Your task to perform on an android device: uninstall "Life360: Find Family & Friends" Image 0: 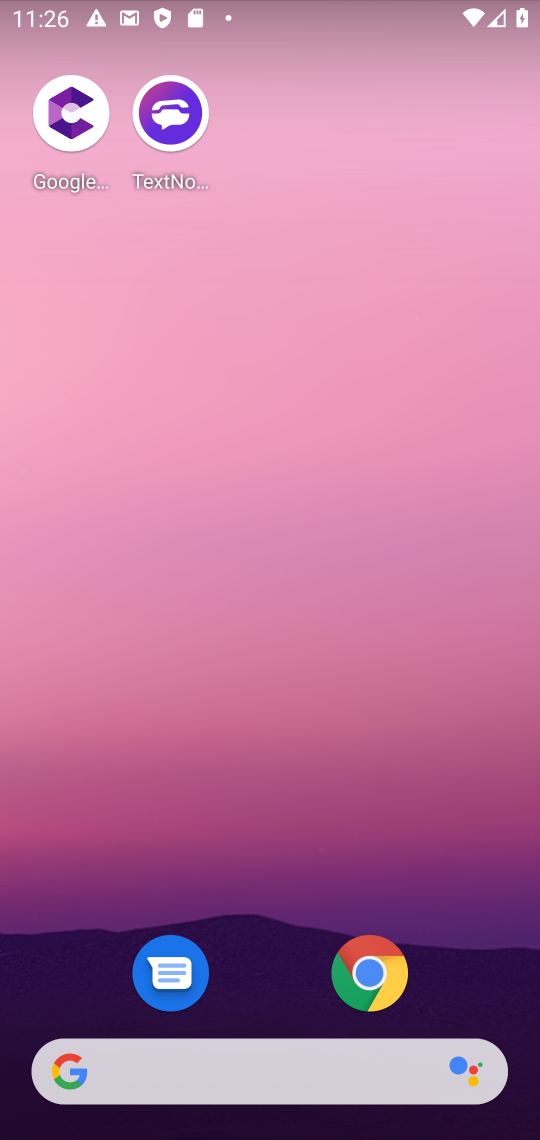
Step 0: drag from (286, 973) to (267, 128)
Your task to perform on an android device: uninstall "Life360: Find Family & Friends" Image 1: 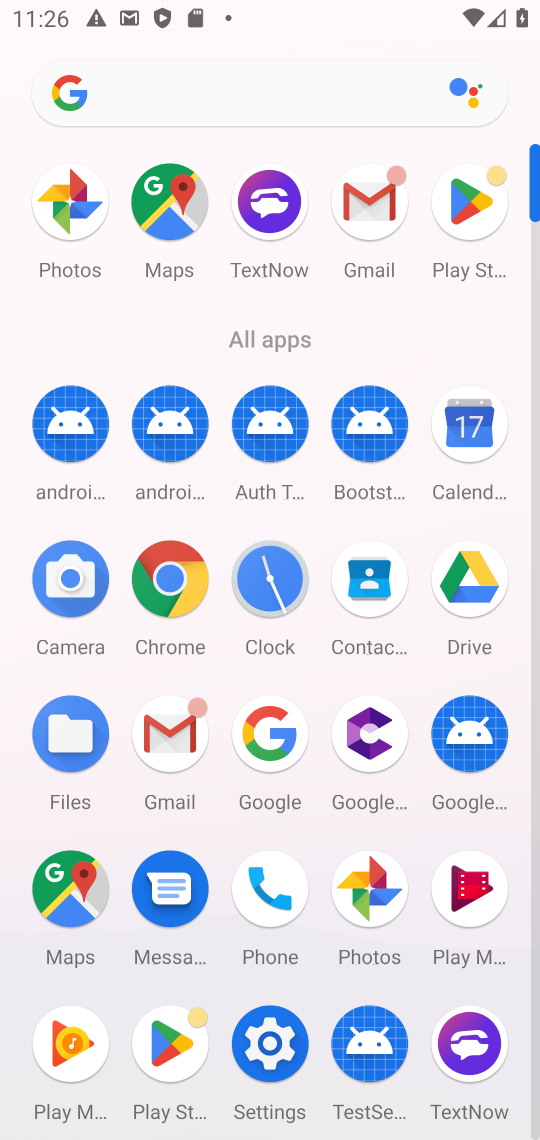
Step 1: click (476, 195)
Your task to perform on an android device: uninstall "Life360: Find Family & Friends" Image 2: 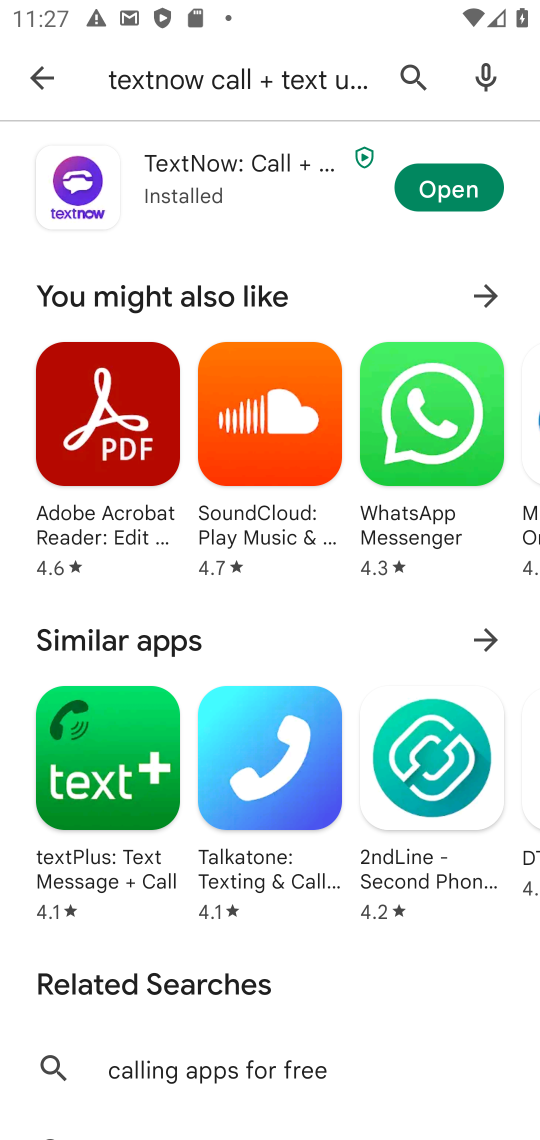
Step 2: click (415, 64)
Your task to perform on an android device: uninstall "Life360: Find Family & Friends" Image 3: 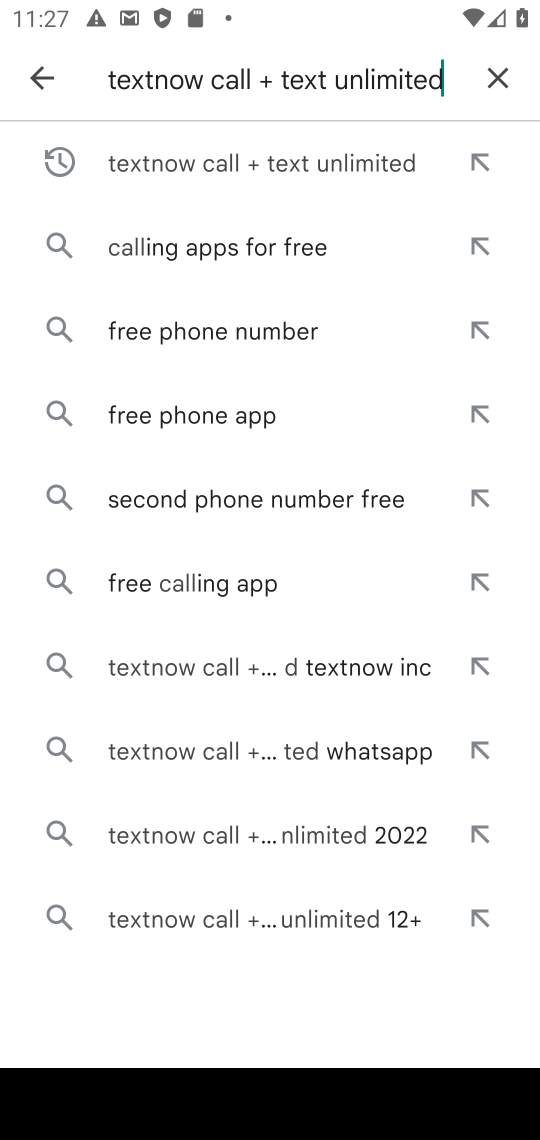
Step 3: click (494, 73)
Your task to perform on an android device: uninstall "Life360: Find Family & Friends" Image 4: 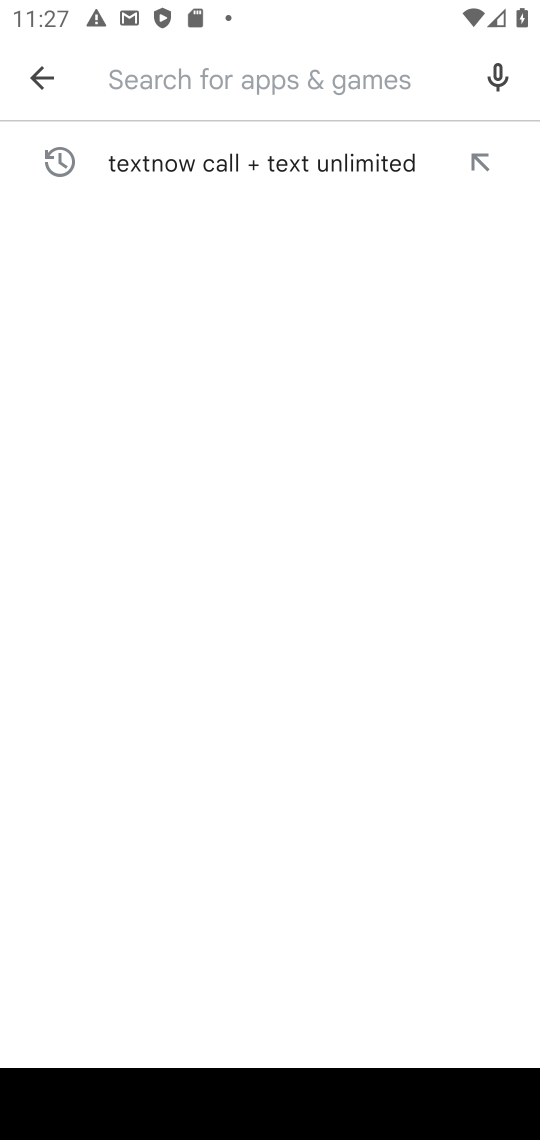
Step 4: type "Life360: Find Family & Friends"
Your task to perform on an android device: uninstall "Life360: Find Family & Friends" Image 5: 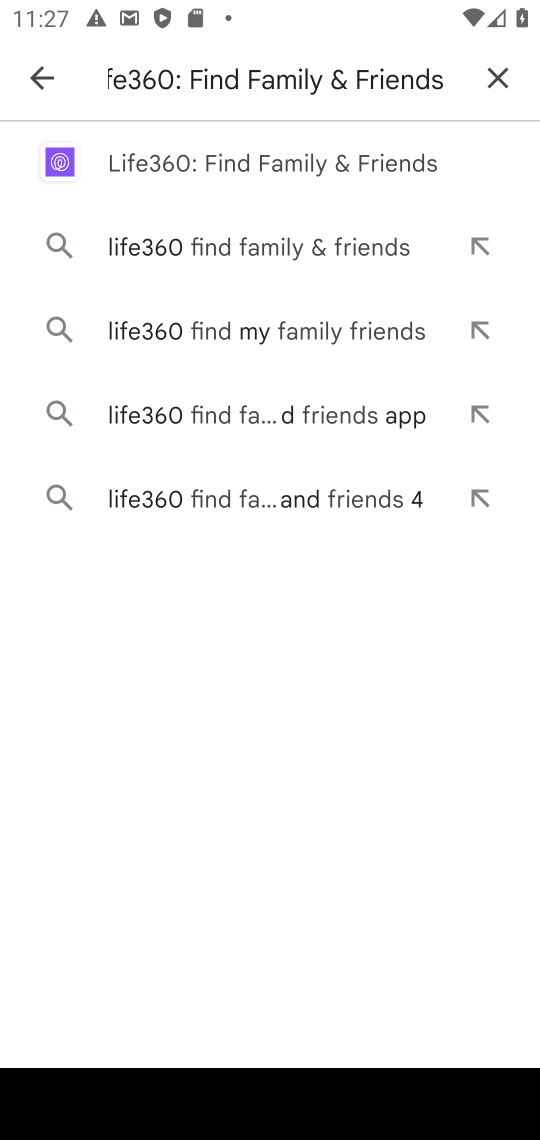
Step 5: click (258, 168)
Your task to perform on an android device: uninstall "Life360: Find Family & Friends" Image 6: 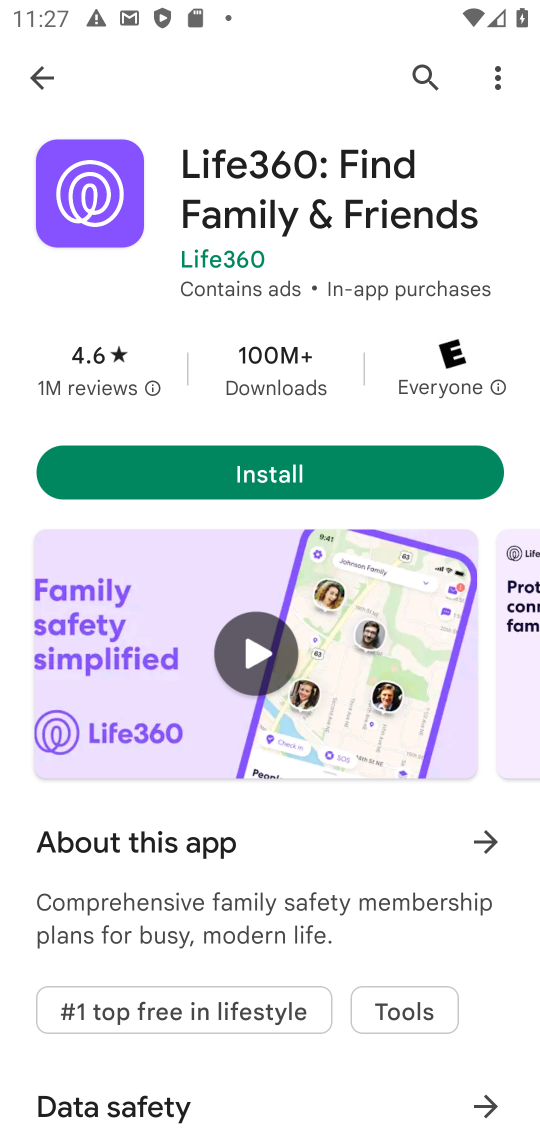
Step 6: task complete